Your task to perform on an android device: choose inbox layout in the gmail app Image 0: 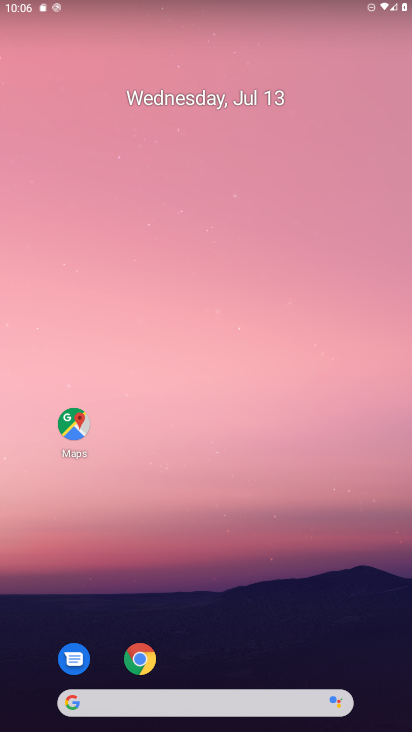
Step 0: drag from (201, 697) to (181, 285)
Your task to perform on an android device: choose inbox layout in the gmail app Image 1: 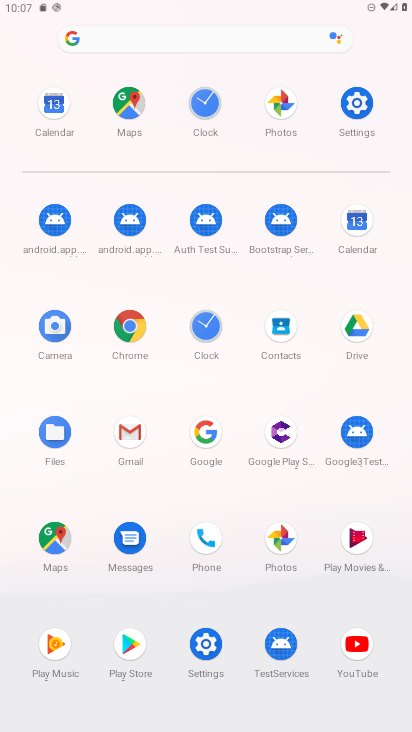
Step 1: click (142, 461)
Your task to perform on an android device: choose inbox layout in the gmail app Image 2: 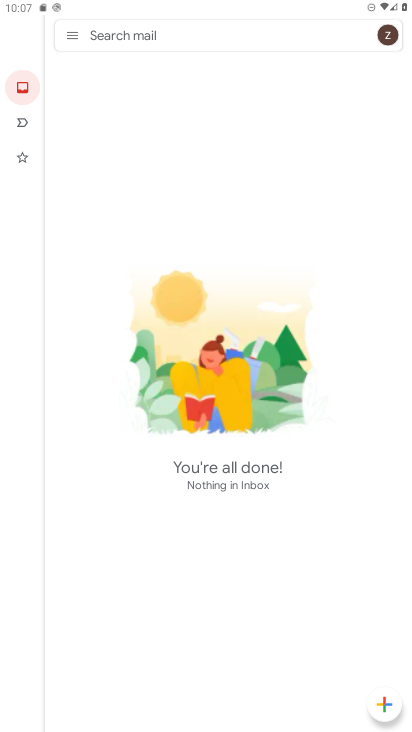
Step 2: click (71, 42)
Your task to perform on an android device: choose inbox layout in the gmail app Image 3: 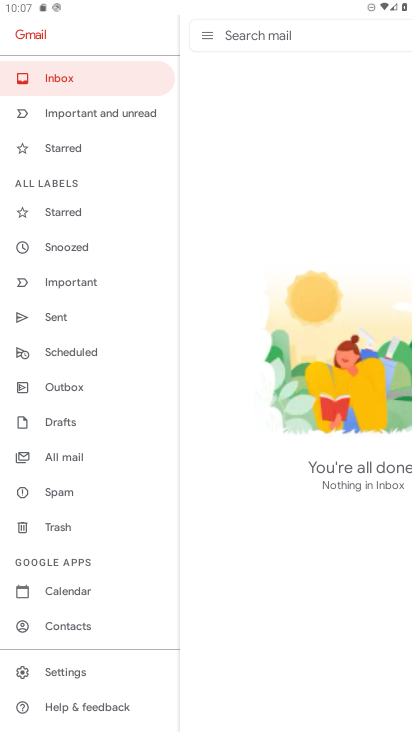
Step 3: click (49, 677)
Your task to perform on an android device: choose inbox layout in the gmail app Image 4: 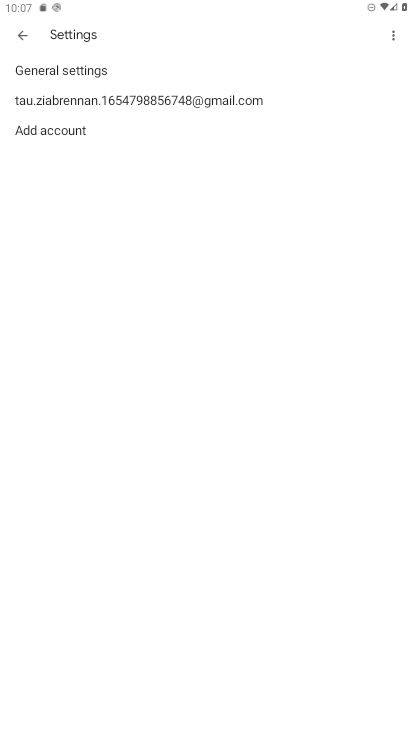
Step 4: click (108, 95)
Your task to perform on an android device: choose inbox layout in the gmail app Image 5: 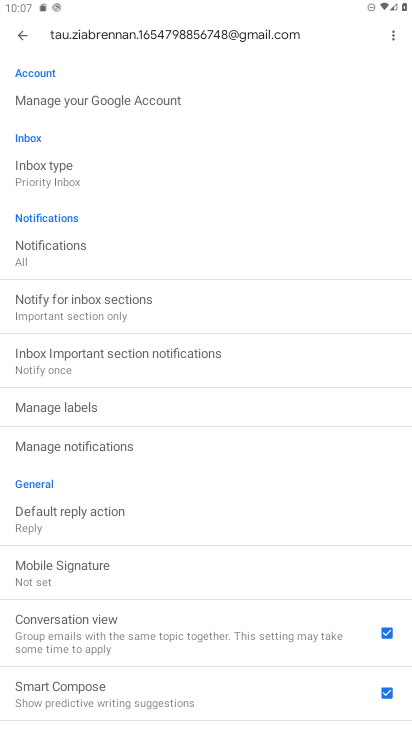
Step 5: click (77, 187)
Your task to perform on an android device: choose inbox layout in the gmail app Image 6: 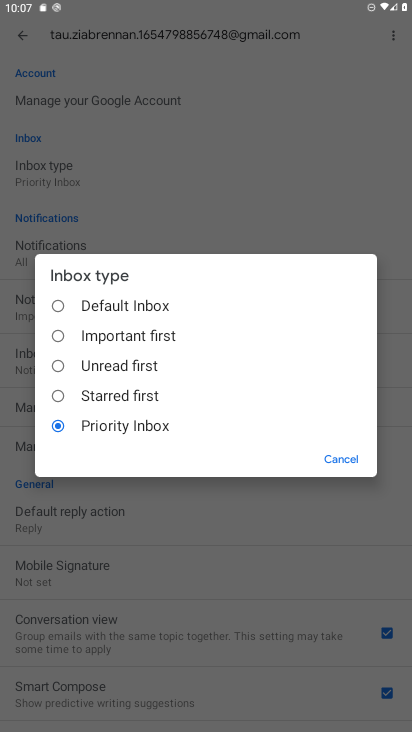
Step 6: click (82, 294)
Your task to perform on an android device: choose inbox layout in the gmail app Image 7: 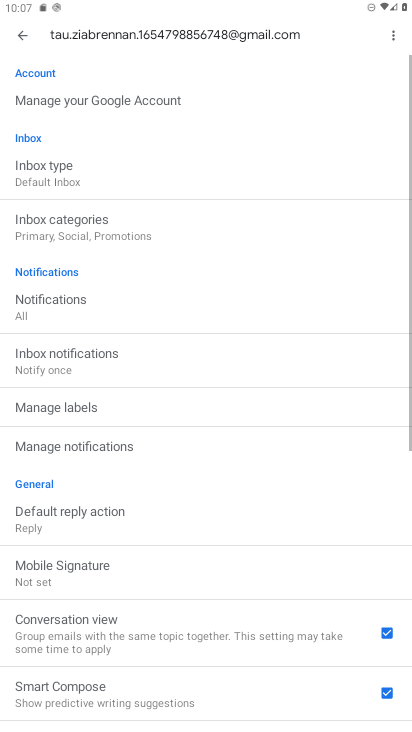
Step 7: task complete